Your task to perform on an android device: toggle priority inbox in the gmail app Image 0: 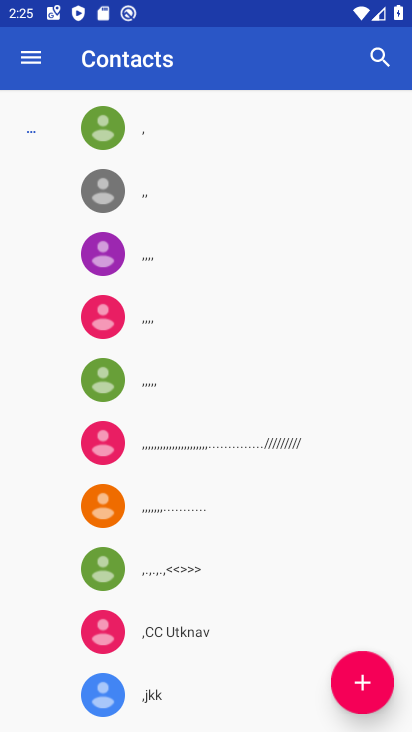
Step 0: press home button
Your task to perform on an android device: toggle priority inbox in the gmail app Image 1: 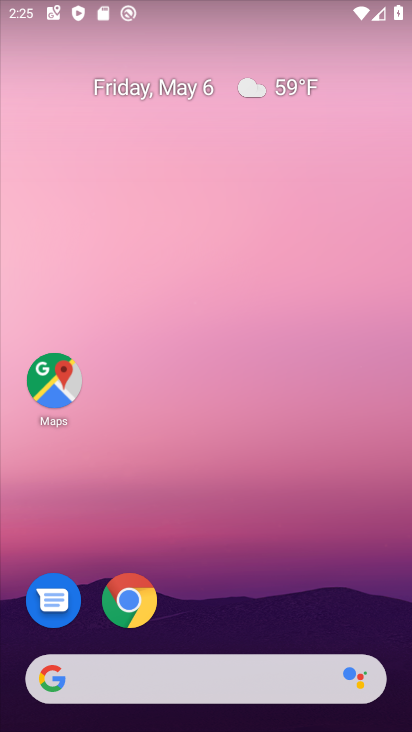
Step 1: drag from (232, 563) to (266, 78)
Your task to perform on an android device: toggle priority inbox in the gmail app Image 2: 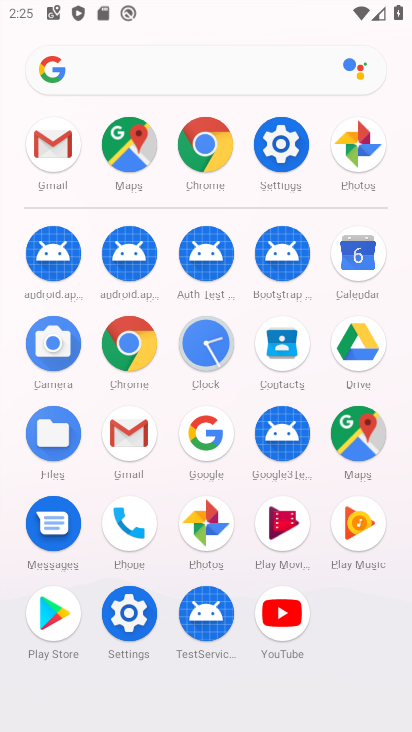
Step 2: click (50, 142)
Your task to perform on an android device: toggle priority inbox in the gmail app Image 3: 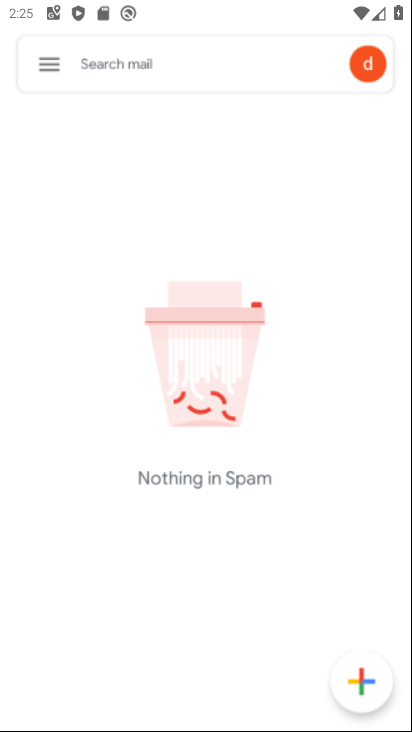
Step 3: click (51, 69)
Your task to perform on an android device: toggle priority inbox in the gmail app Image 4: 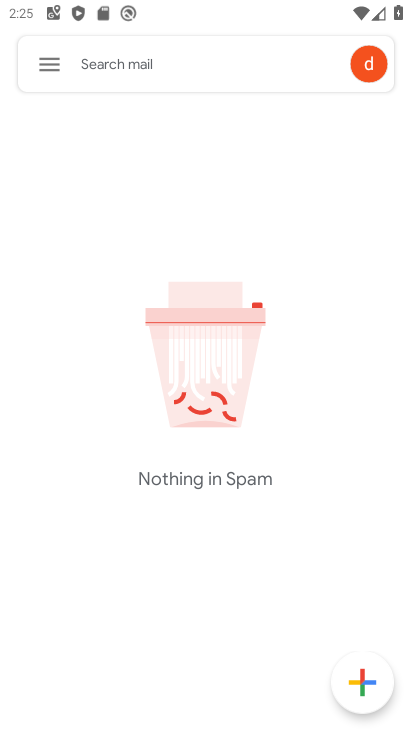
Step 4: click (40, 63)
Your task to perform on an android device: toggle priority inbox in the gmail app Image 5: 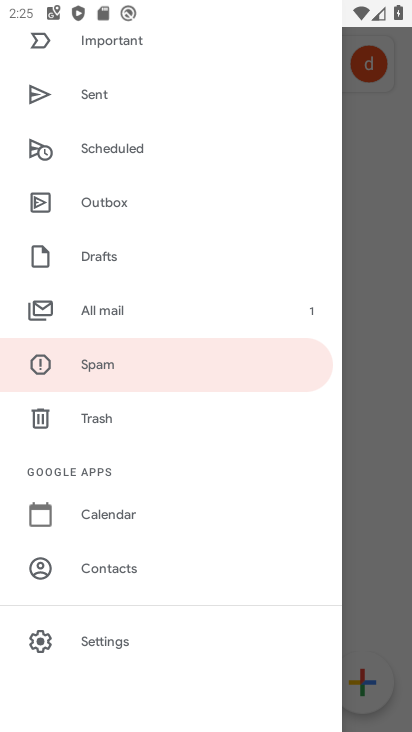
Step 5: click (114, 639)
Your task to perform on an android device: toggle priority inbox in the gmail app Image 6: 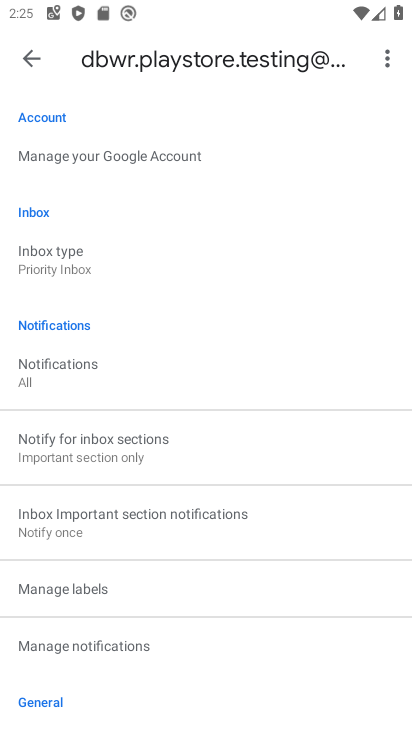
Step 6: click (80, 262)
Your task to perform on an android device: toggle priority inbox in the gmail app Image 7: 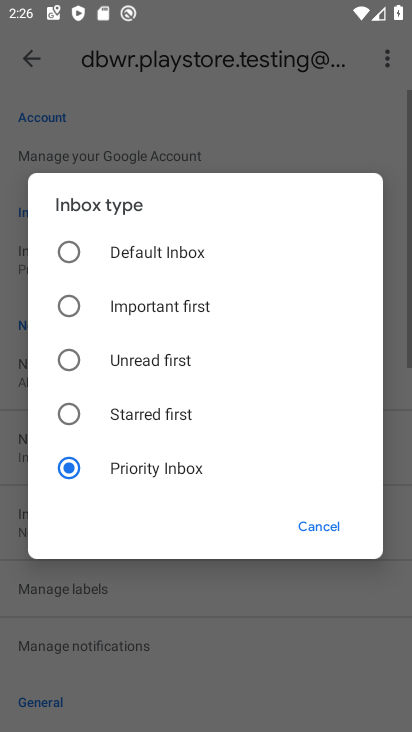
Step 7: click (67, 250)
Your task to perform on an android device: toggle priority inbox in the gmail app Image 8: 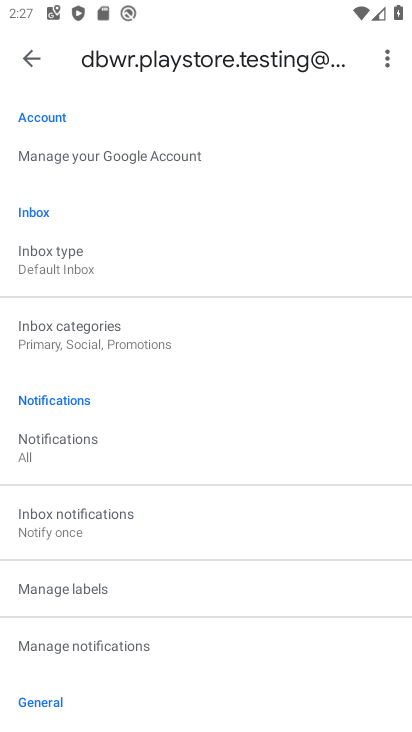
Step 8: task complete